Your task to perform on an android device: see creations saved in the google photos Image 0: 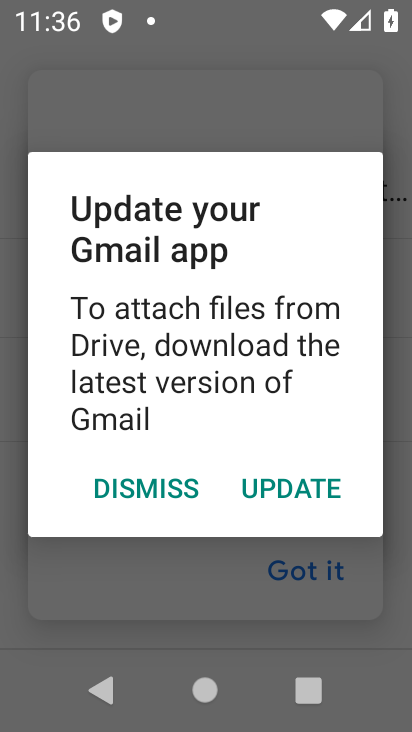
Step 0: click (169, 480)
Your task to perform on an android device: see creations saved in the google photos Image 1: 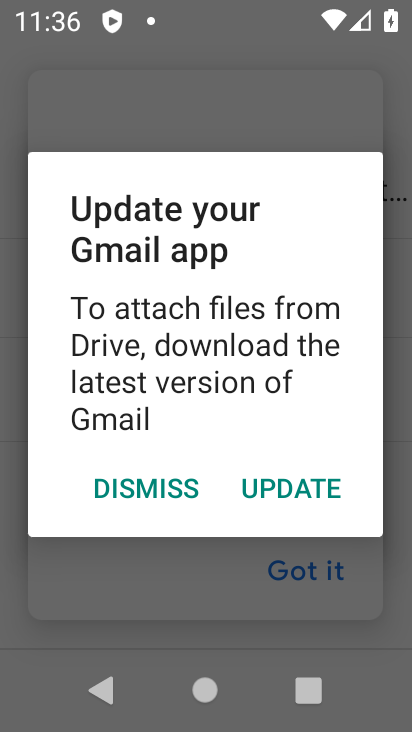
Step 1: click (170, 481)
Your task to perform on an android device: see creations saved in the google photos Image 2: 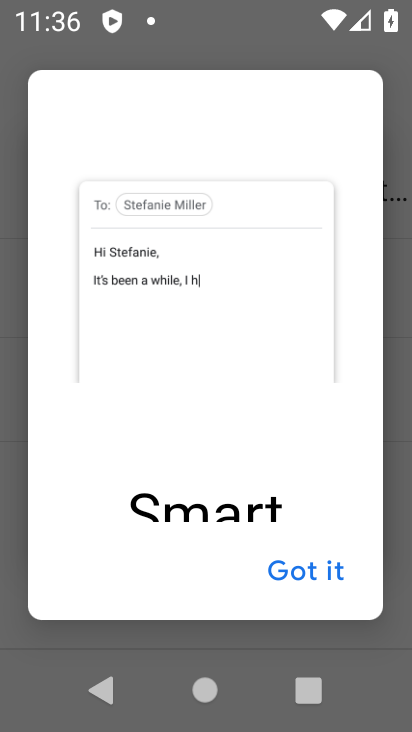
Step 2: click (170, 481)
Your task to perform on an android device: see creations saved in the google photos Image 3: 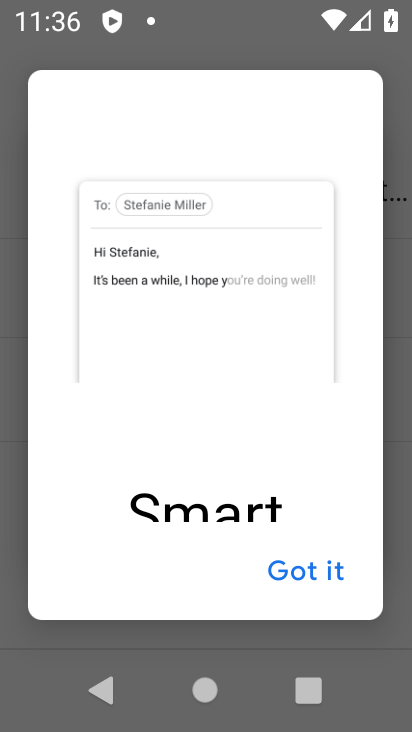
Step 3: click (307, 563)
Your task to perform on an android device: see creations saved in the google photos Image 4: 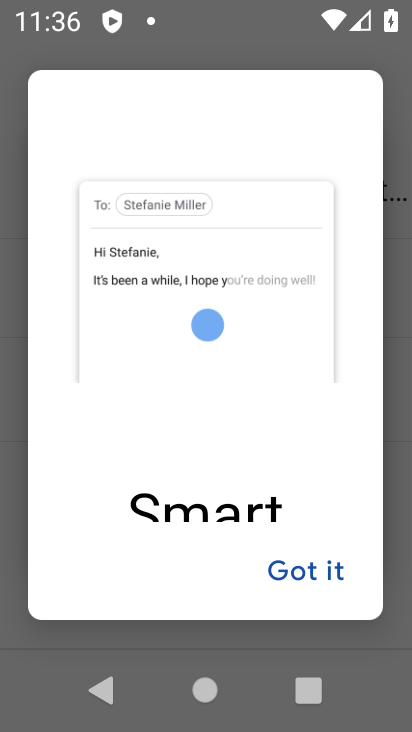
Step 4: click (307, 563)
Your task to perform on an android device: see creations saved in the google photos Image 5: 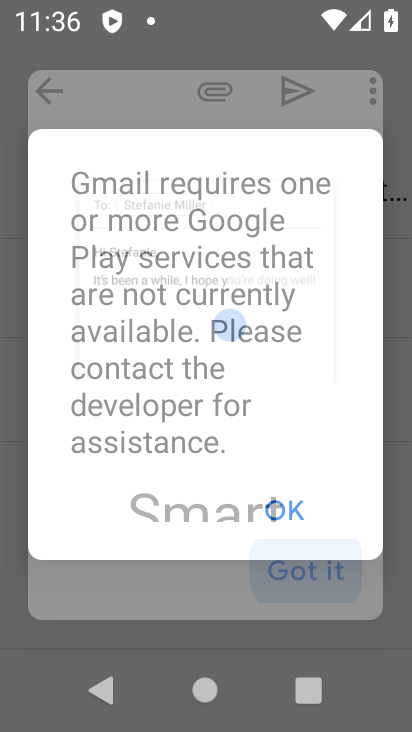
Step 5: click (307, 564)
Your task to perform on an android device: see creations saved in the google photos Image 6: 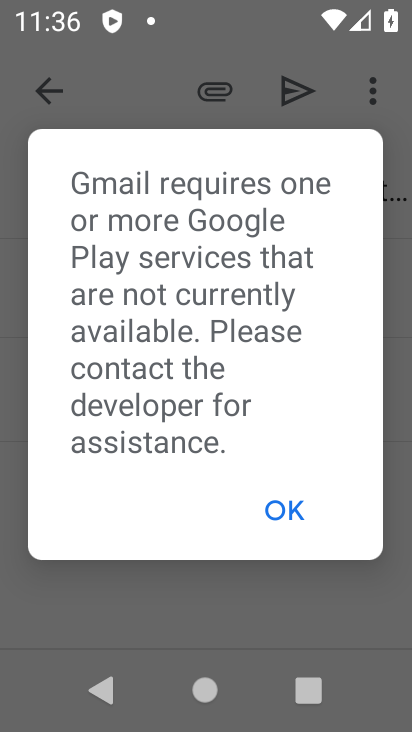
Step 6: click (307, 564)
Your task to perform on an android device: see creations saved in the google photos Image 7: 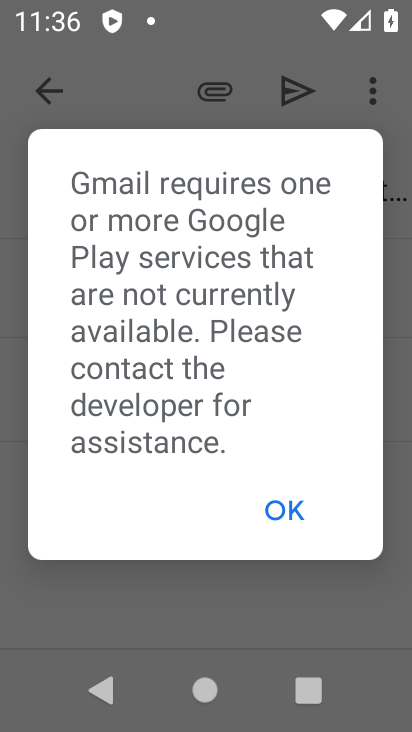
Step 7: click (299, 530)
Your task to perform on an android device: see creations saved in the google photos Image 8: 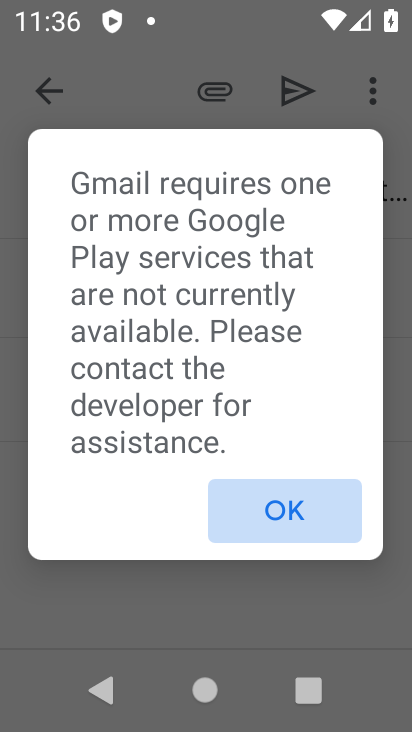
Step 8: click (290, 506)
Your task to perform on an android device: see creations saved in the google photos Image 9: 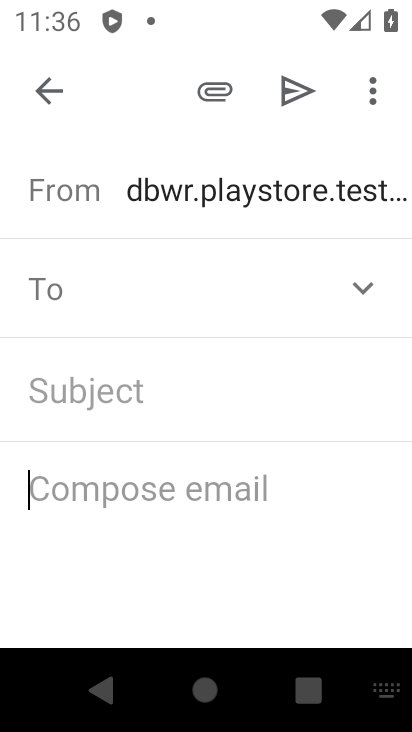
Step 9: click (55, 91)
Your task to perform on an android device: see creations saved in the google photos Image 10: 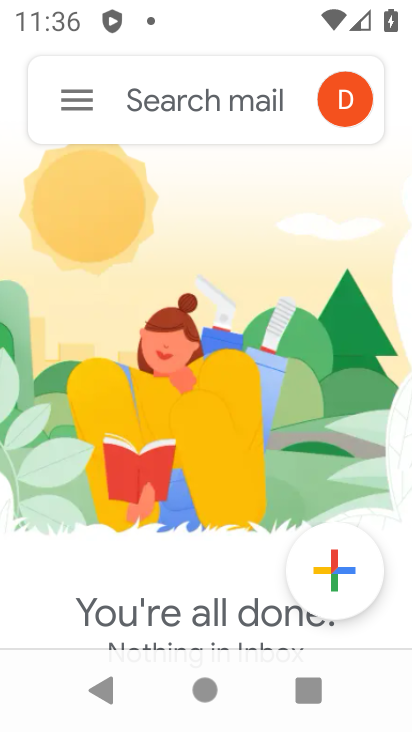
Step 10: press back button
Your task to perform on an android device: see creations saved in the google photos Image 11: 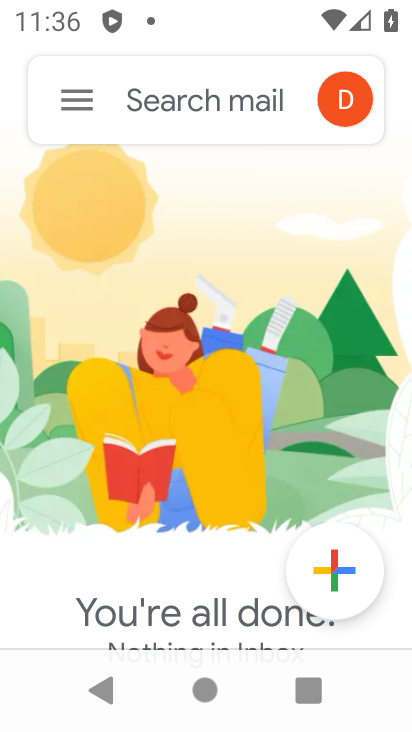
Step 11: press back button
Your task to perform on an android device: see creations saved in the google photos Image 12: 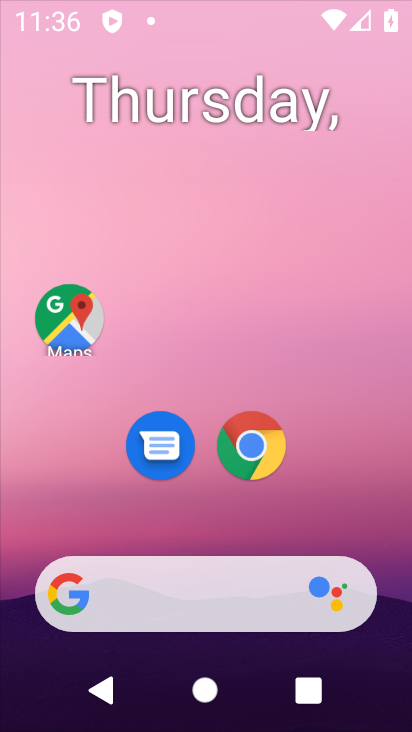
Step 12: press back button
Your task to perform on an android device: see creations saved in the google photos Image 13: 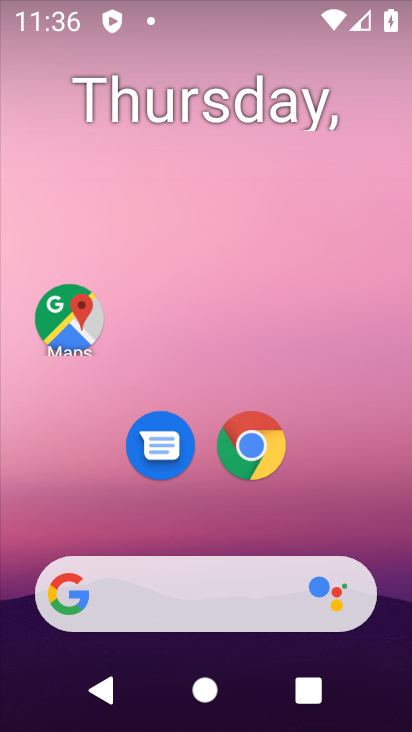
Step 13: drag from (255, 652) to (194, 53)
Your task to perform on an android device: see creations saved in the google photos Image 14: 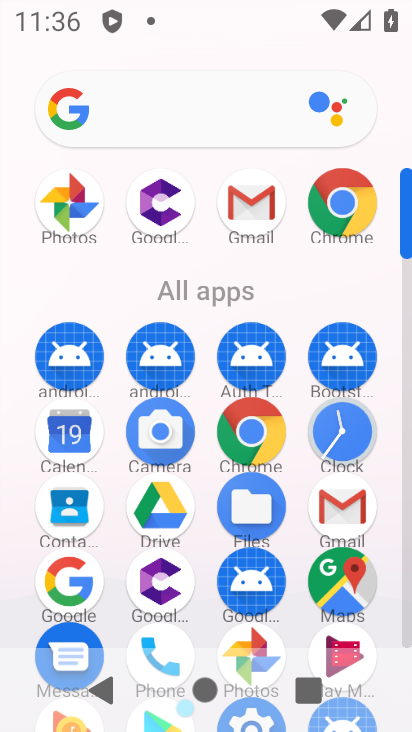
Step 14: click (76, 193)
Your task to perform on an android device: see creations saved in the google photos Image 15: 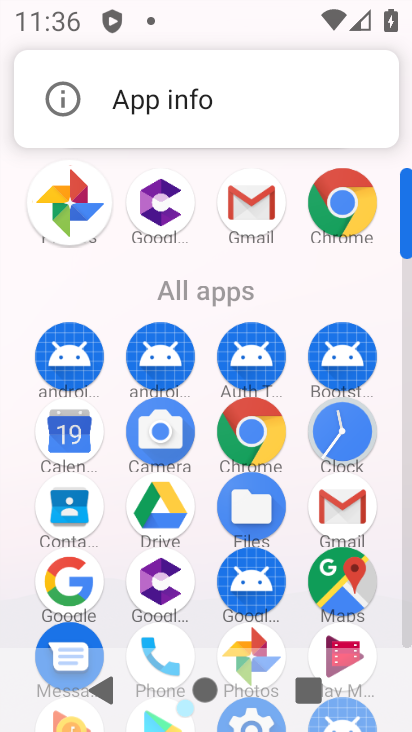
Step 15: click (76, 193)
Your task to perform on an android device: see creations saved in the google photos Image 16: 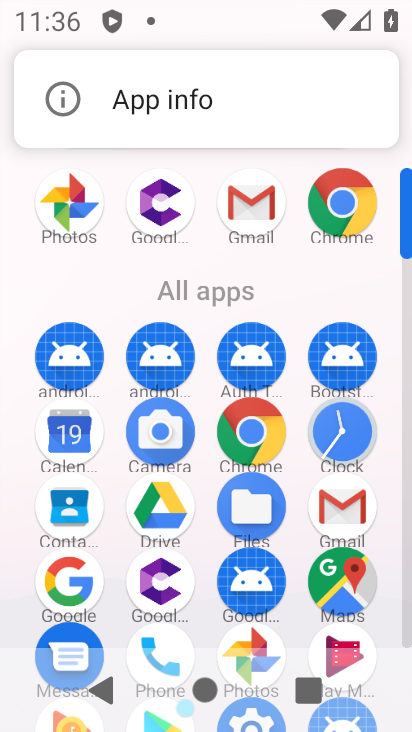
Step 16: click (76, 206)
Your task to perform on an android device: see creations saved in the google photos Image 17: 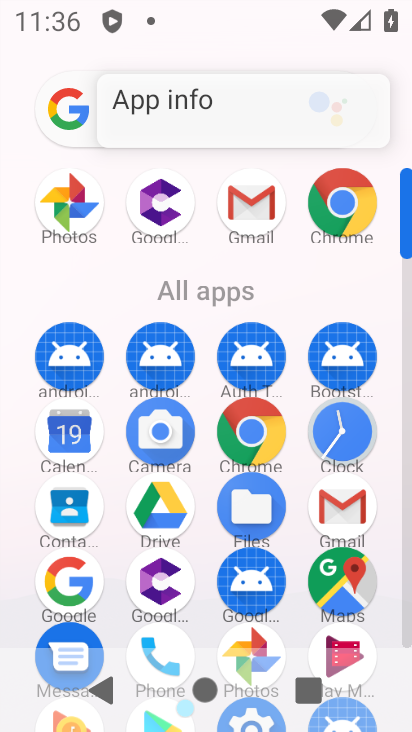
Step 17: click (76, 206)
Your task to perform on an android device: see creations saved in the google photos Image 18: 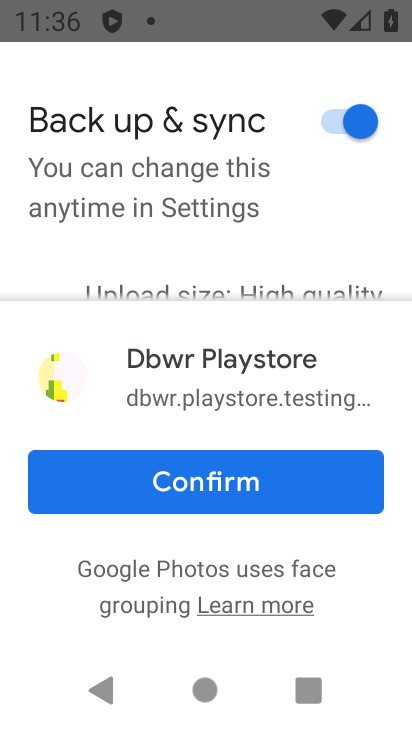
Step 18: click (209, 472)
Your task to perform on an android device: see creations saved in the google photos Image 19: 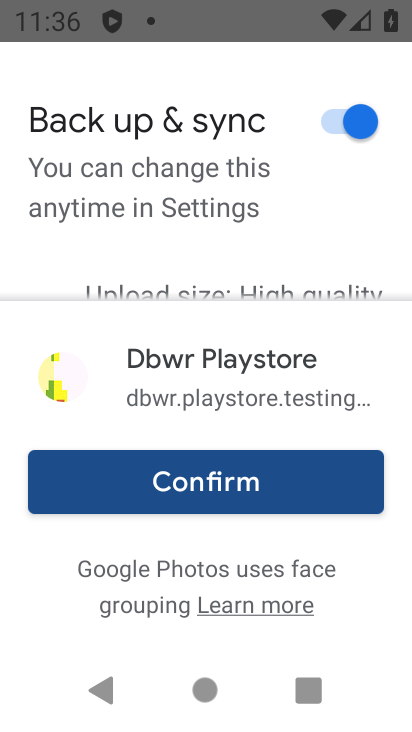
Step 19: click (209, 478)
Your task to perform on an android device: see creations saved in the google photos Image 20: 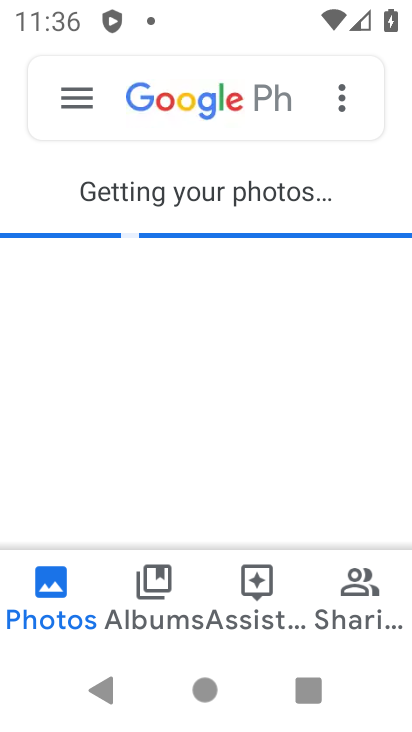
Step 20: click (209, 478)
Your task to perform on an android device: see creations saved in the google photos Image 21: 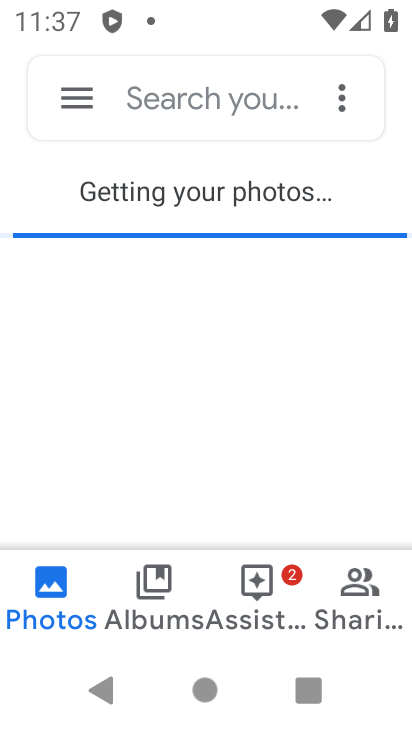
Step 21: task complete